Your task to perform on an android device: Open location settings Image 0: 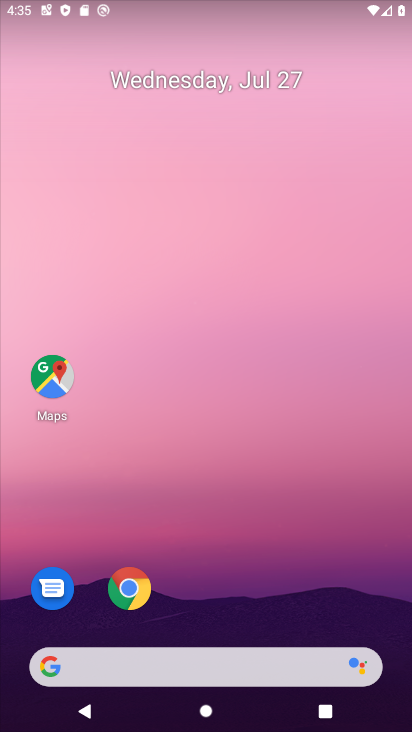
Step 0: drag from (227, 730) to (223, 143)
Your task to perform on an android device: Open location settings Image 1: 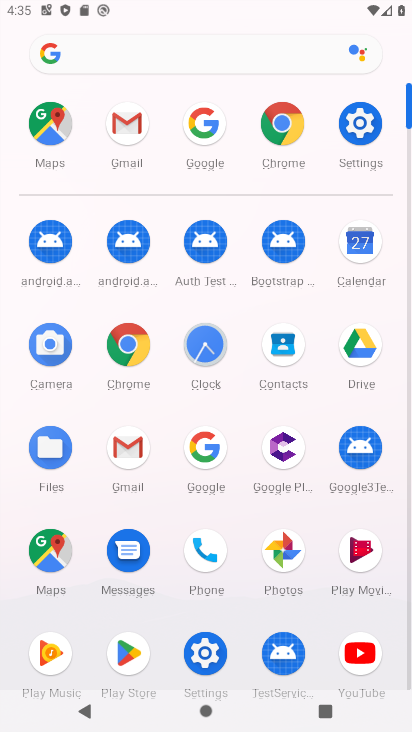
Step 1: click (357, 127)
Your task to perform on an android device: Open location settings Image 2: 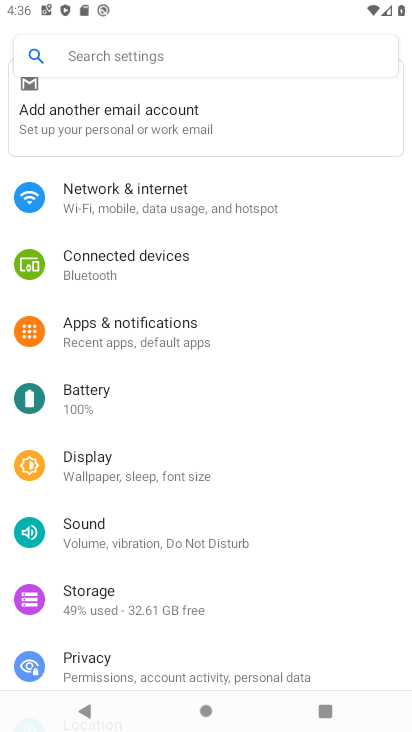
Step 2: drag from (98, 631) to (119, 311)
Your task to perform on an android device: Open location settings Image 3: 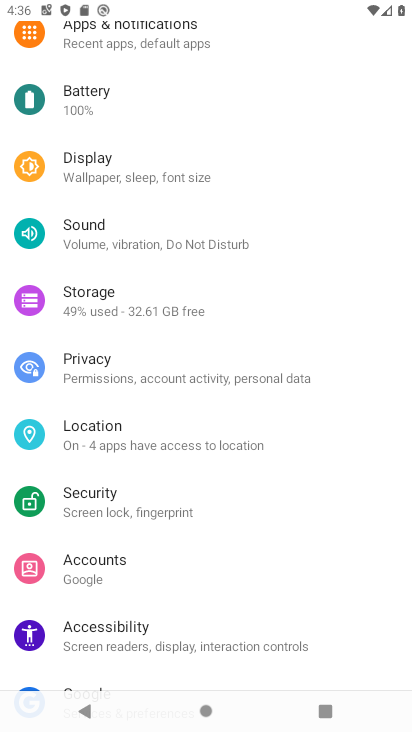
Step 3: click (81, 424)
Your task to perform on an android device: Open location settings Image 4: 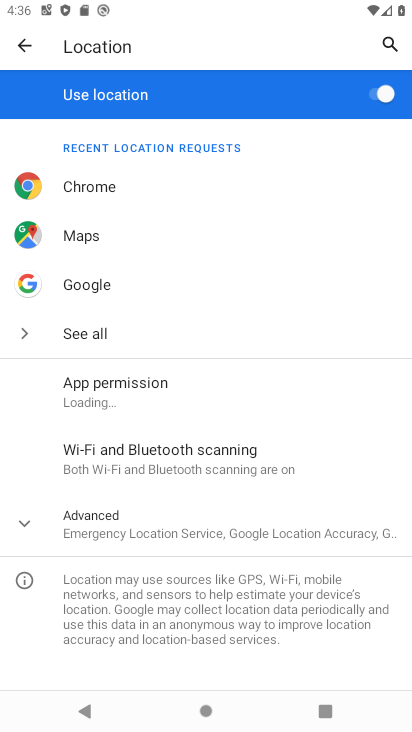
Step 4: task complete